Your task to perform on an android device: Open network settings Image 0: 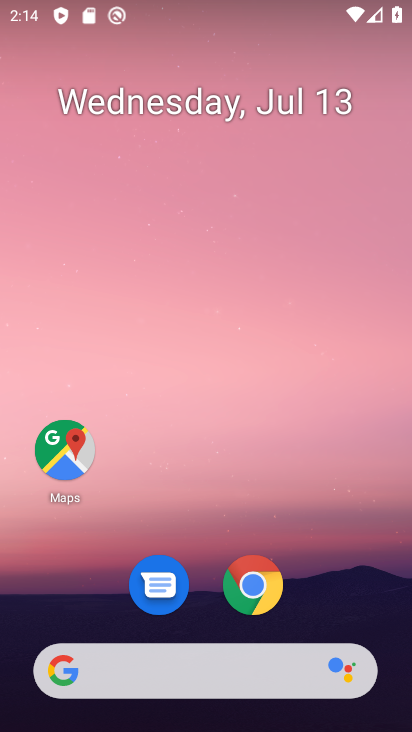
Step 0: drag from (237, 661) to (277, 113)
Your task to perform on an android device: Open network settings Image 1: 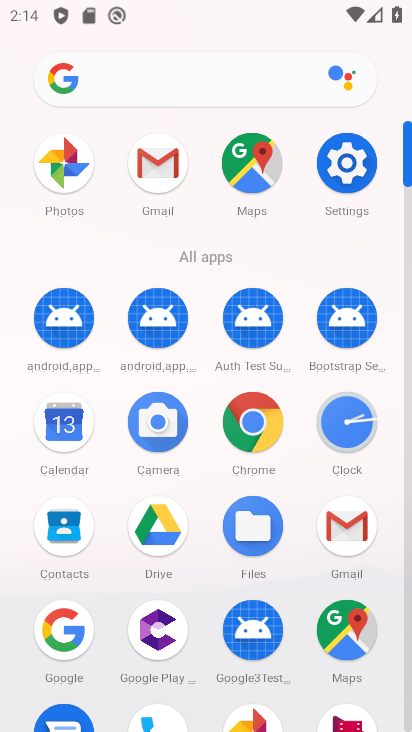
Step 1: click (332, 166)
Your task to perform on an android device: Open network settings Image 2: 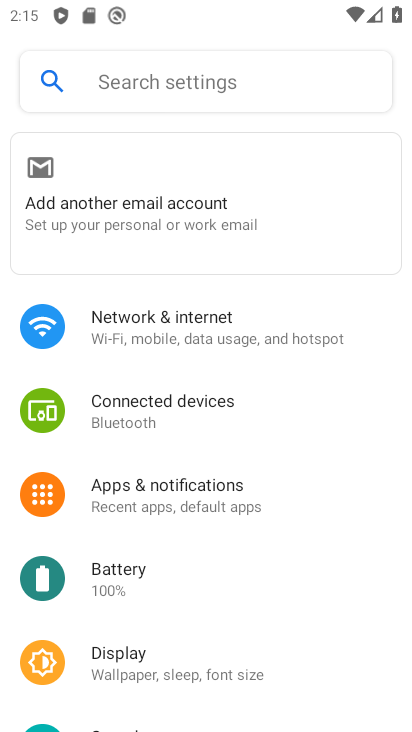
Step 2: click (187, 343)
Your task to perform on an android device: Open network settings Image 3: 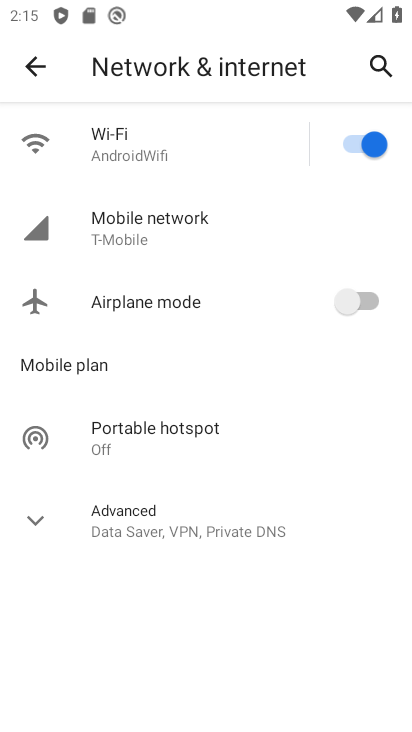
Step 3: click (171, 231)
Your task to perform on an android device: Open network settings Image 4: 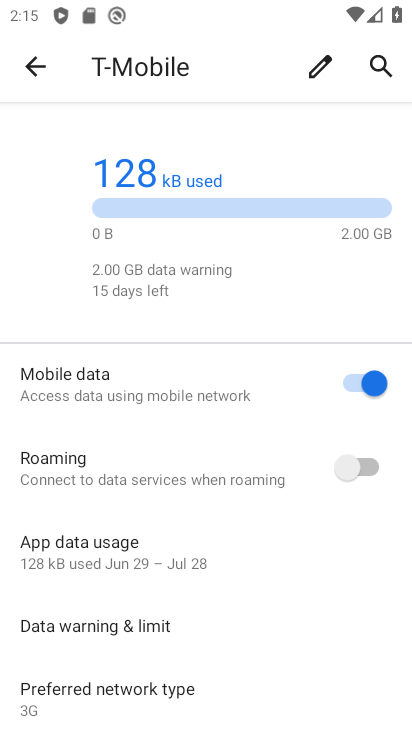
Step 4: task complete